Your task to perform on an android device: Open maps Image 0: 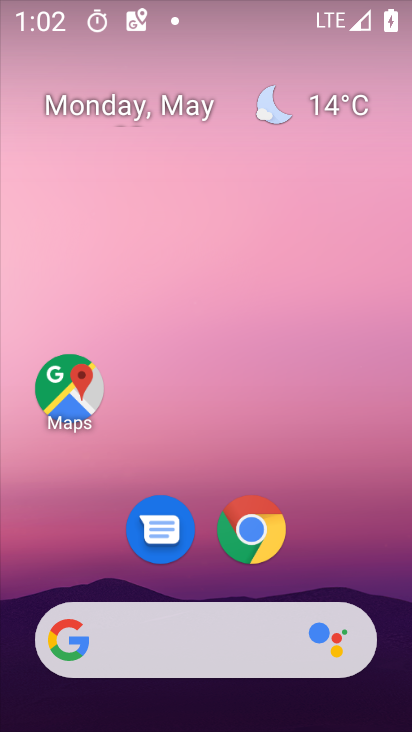
Step 0: drag from (385, 564) to (387, 280)
Your task to perform on an android device: Open maps Image 1: 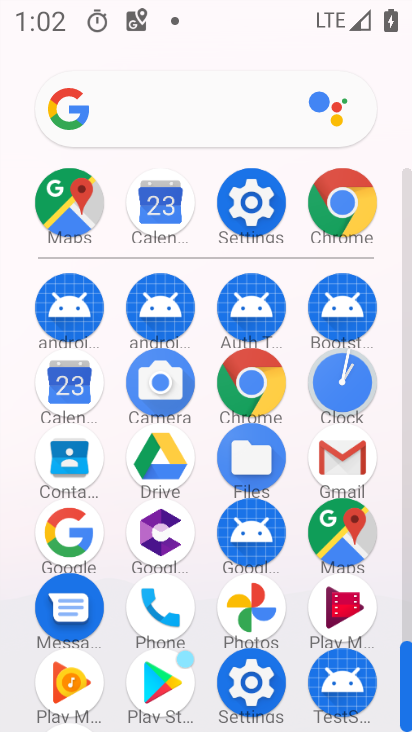
Step 1: click (350, 537)
Your task to perform on an android device: Open maps Image 2: 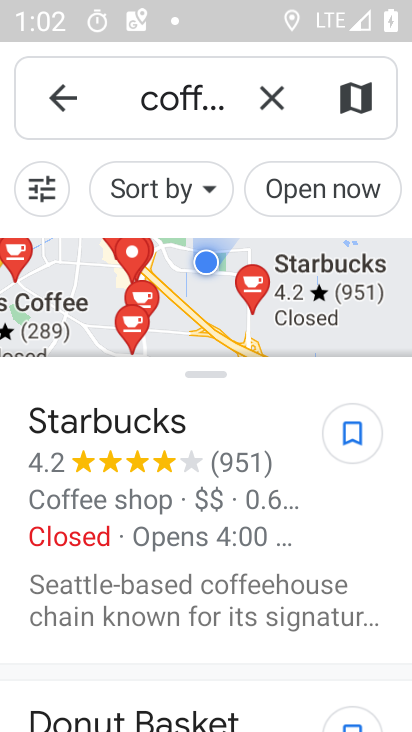
Step 2: task complete